Your task to perform on an android device: open app "WhatsApp Messenger" (install if not already installed) Image 0: 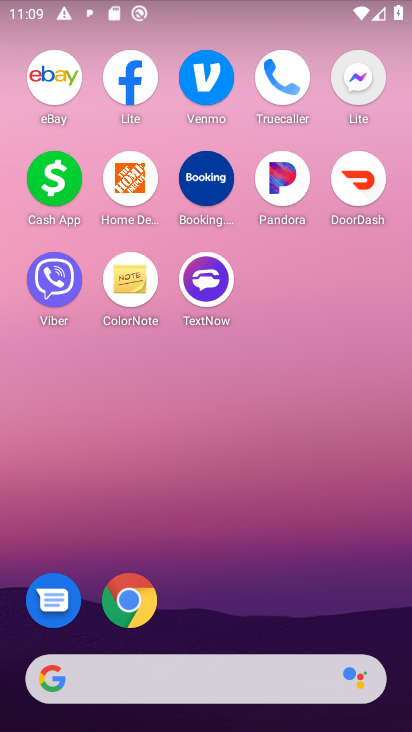
Step 0: press back button
Your task to perform on an android device: open app "WhatsApp Messenger" (install if not already installed) Image 1: 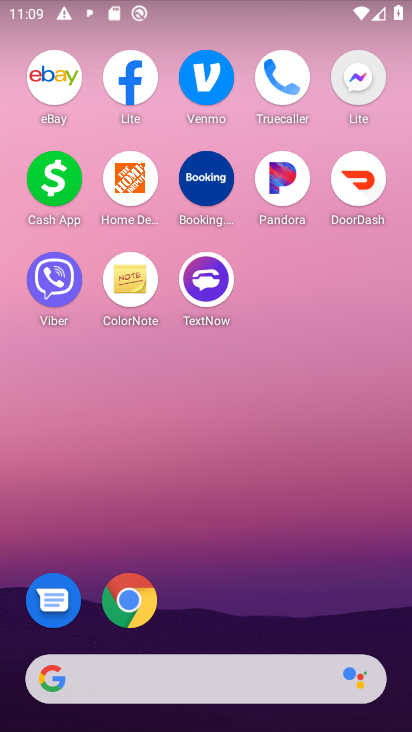
Step 1: press back button
Your task to perform on an android device: open app "WhatsApp Messenger" (install if not already installed) Image 2: 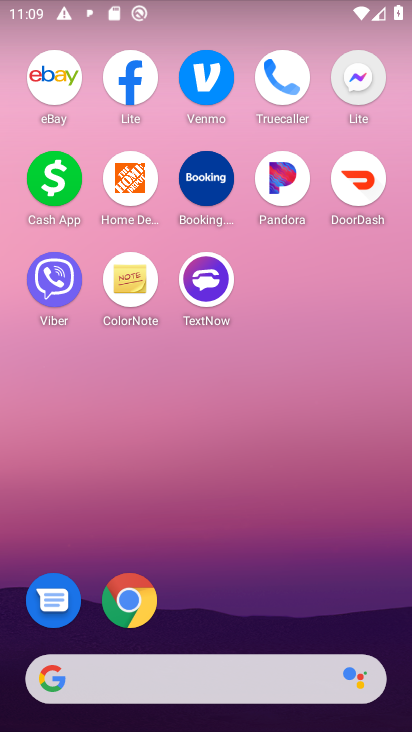
Step 2: drag from (245, 581) to (245, 157)
Your task to perform on an android device: open app "WhatsApp Messenger" (install if not already installed) Image 3: 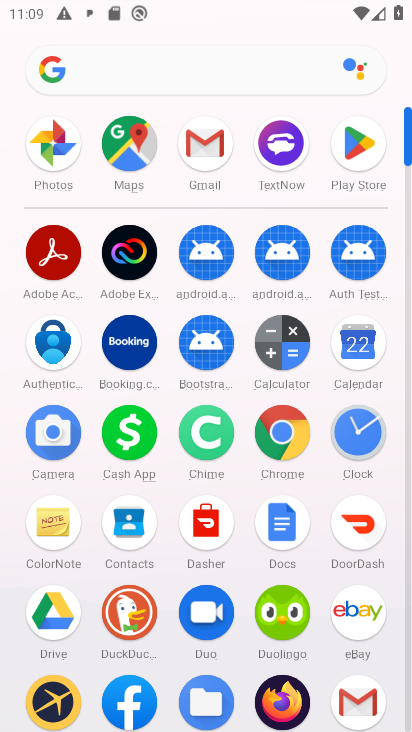
Step 3: click (344, 149)
Your task to perform on an android device: open app "WhatsApp Messenger" (install if not already installed) Image 4: 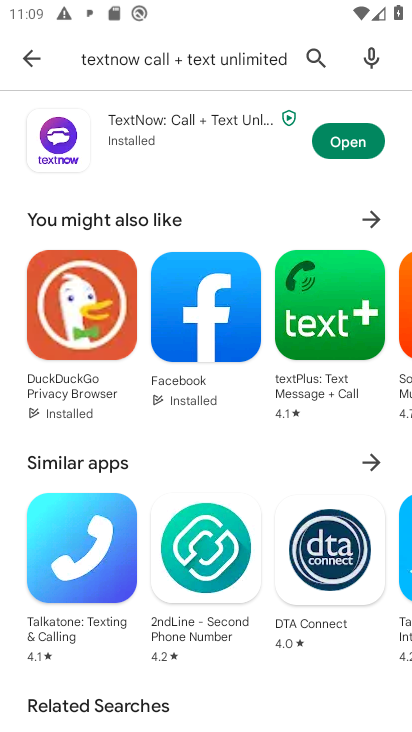
Step 4: click (312, 51)
Your task to perform on an android device: open app "WhatsApp Messenger" (install if not already installed) Image 5: 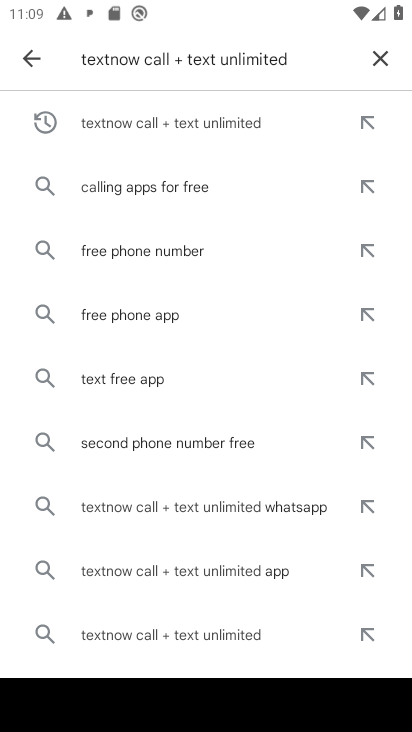
Step 5: click (374, 59)
Your task to perform on an android device: open app "WhatsApp Messenger" (install if not already installed) Image 6: 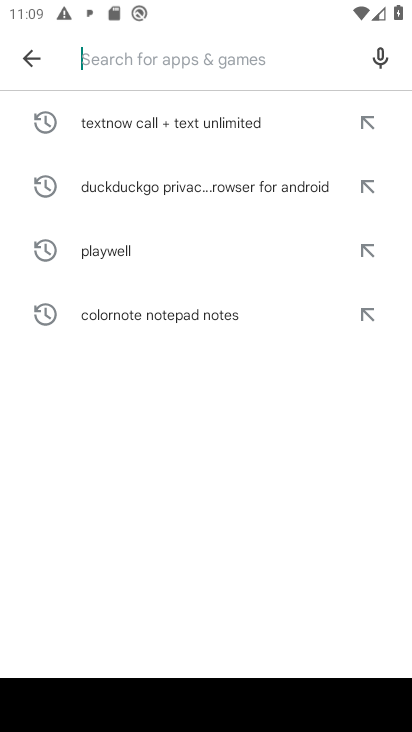
Step 6: type "WhatsApp Messenger"
Your task to perform on an android device: open app "WhatsApp Messenger" (install if not already installed) Image 7: 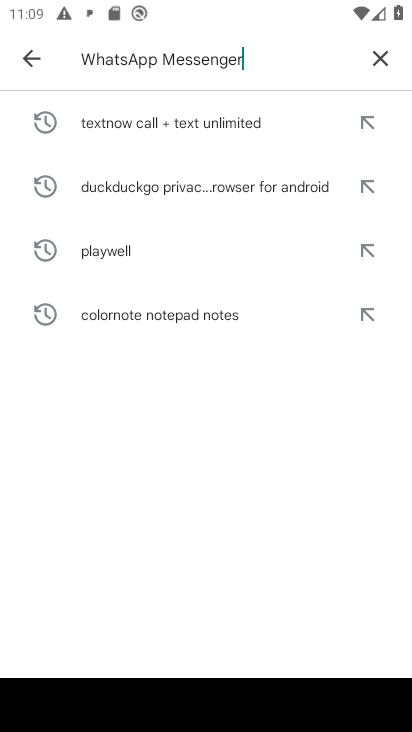
Step 7: type ""
Your task to perform on an android device: open app "WhatsApp Messenger" (install if not already installed) Image 8: 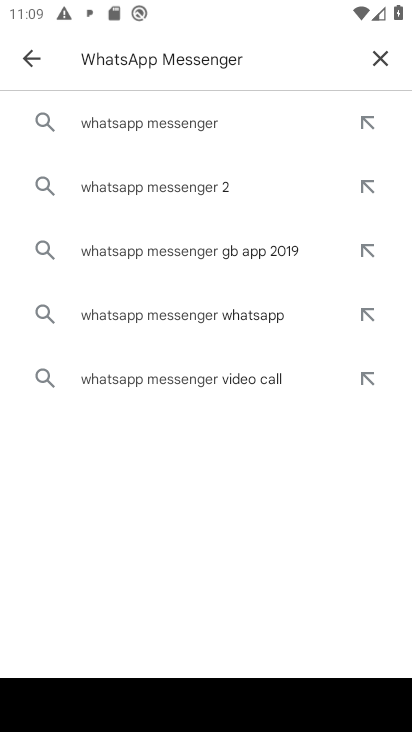
Step 8: click (170, 126)
Your task to perform on an android device: open app "WhatsApp Messenger" (install if not already installed) Image 9: 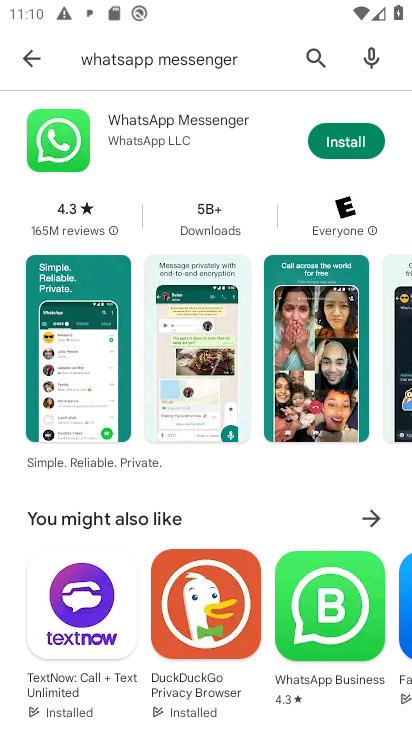
Step 9: click (349, 133)
Your task to perform on an android device: open app "WhatsApp Messenger" (install if not already installed) Image 10: 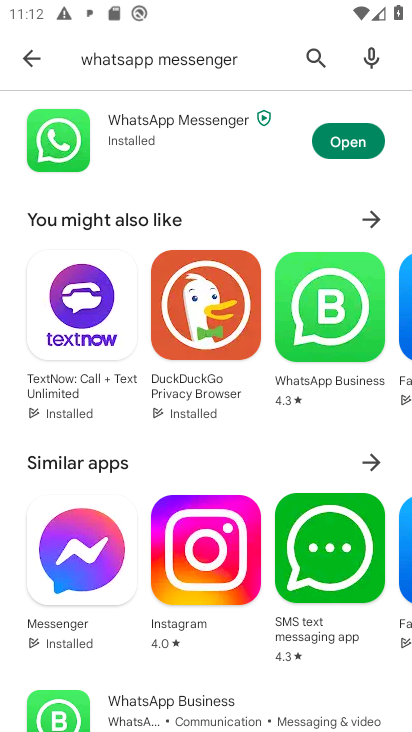
Step 10: click (328, 140)
Your task to perform on an android device: open app "WhatsApp Messenger" (install if not already installed) Image 11: 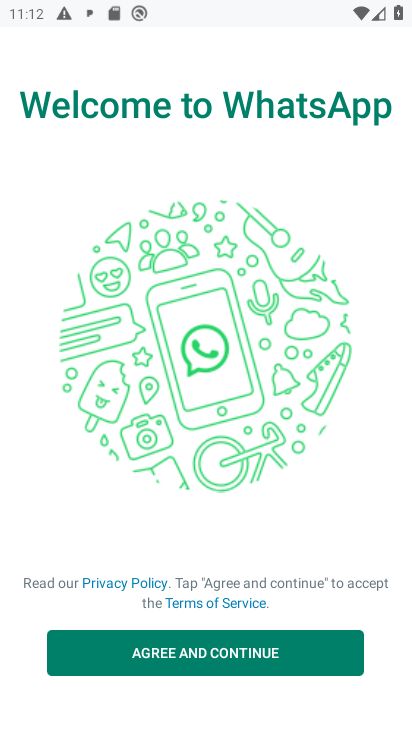
Step 11: task complete